Your task to perform on an android device: toggle notification dots Image 0: 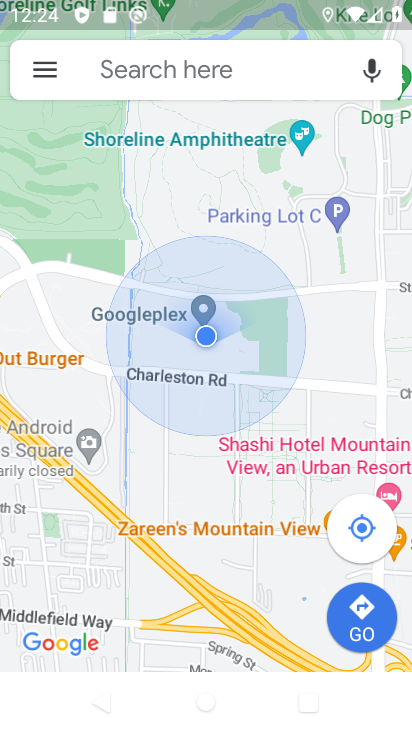
Step 0: press home button
Your task to perform on an android device: toggle notification dots Image 1: 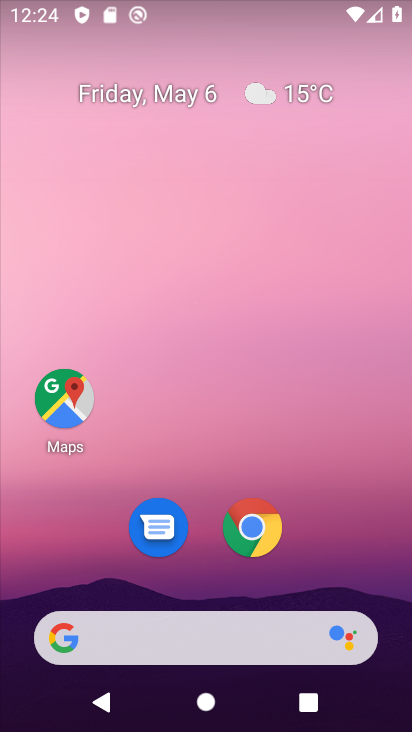
Step 1: drag from (336, 511) to (234, 1)
Your task to perform on an android device: toggle notification dots Image 2: 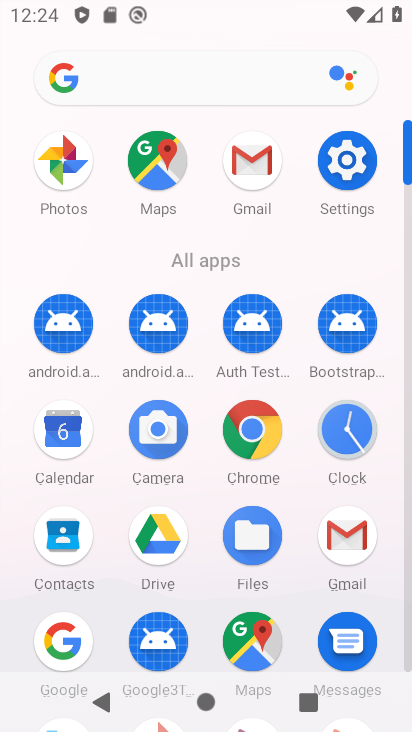
Step 2: click (346, 158)
Your task to perform on an android device: toggle notification dots Image 3: 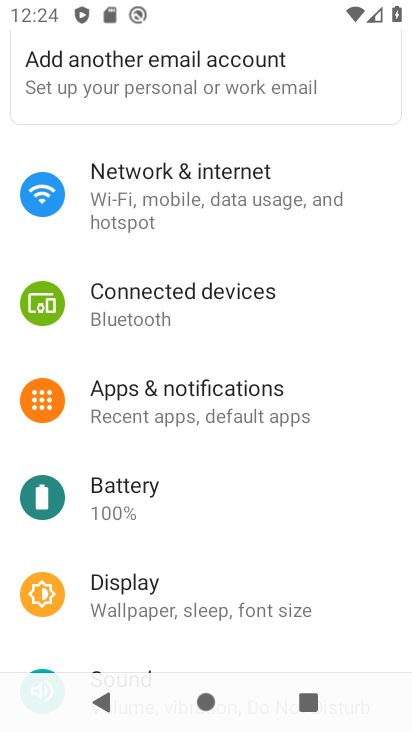
Step 3: click (177, 395)
Your task to perform on an android device: toggle notification dots Image 4: 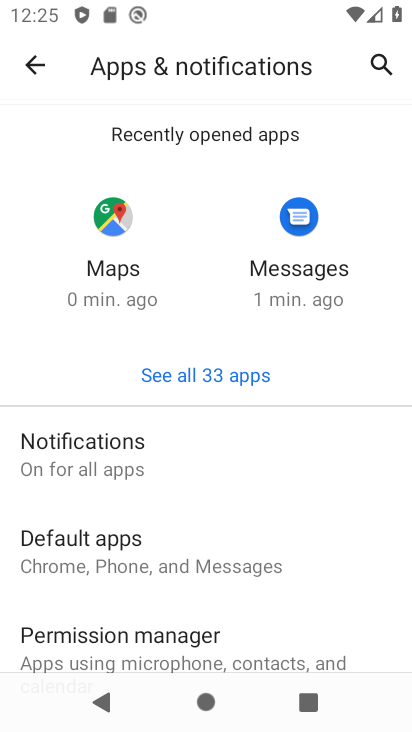
Step 4: drag from (165, 511) to (215, 407)
Your task to perform on an android device: toggle notification dots Image 5: 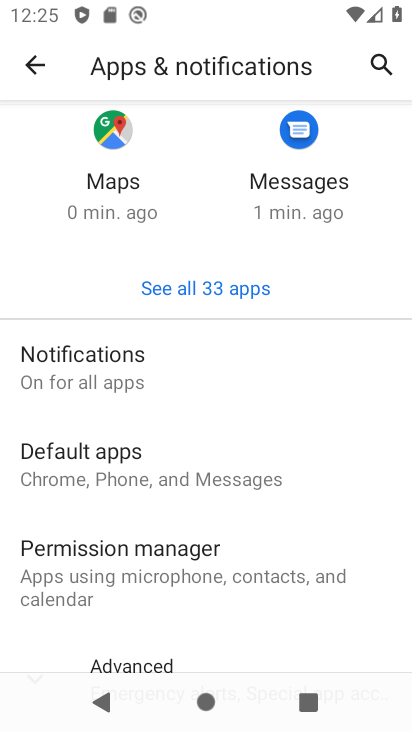
Step 5: drag from (174, 471) to (211, 345)
Your task to perform on an android device: toggle notification dots Image 6: 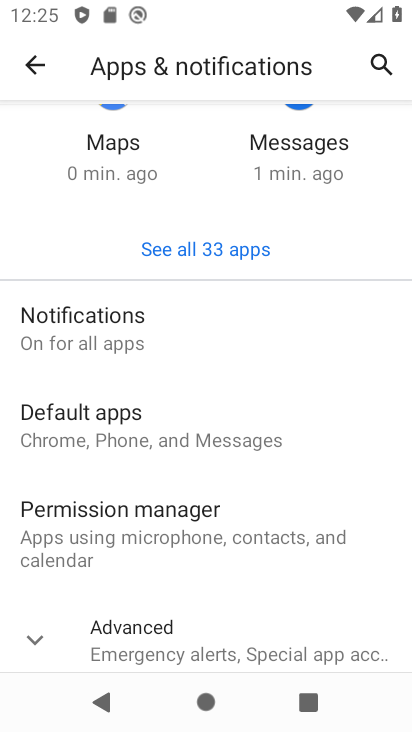
Step 6: click (101, 336)
Your task to perform on an android device: toggle notification dots Image 7: 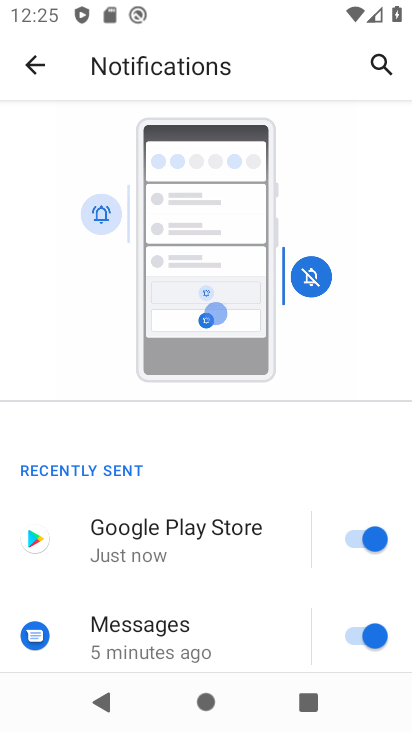
Step 7: drag from (185, 574) to (241, 382)
Your task to perform on an android device: toggle notification dots Image 8: 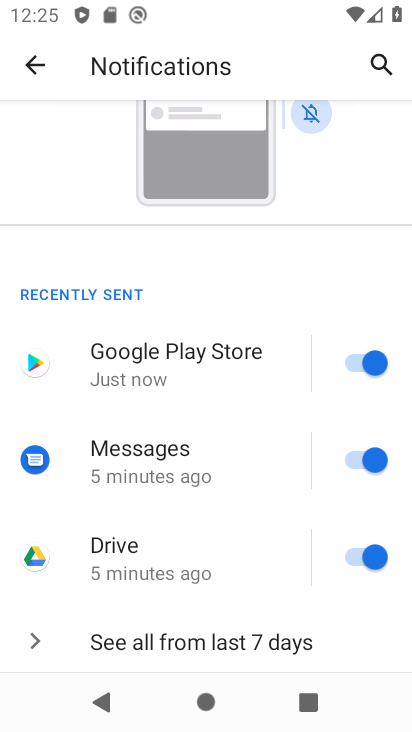
Step 8: drag from (186, 604) to (241, 442)
Your task to perform on an android device: toggle notification dots Image 9: 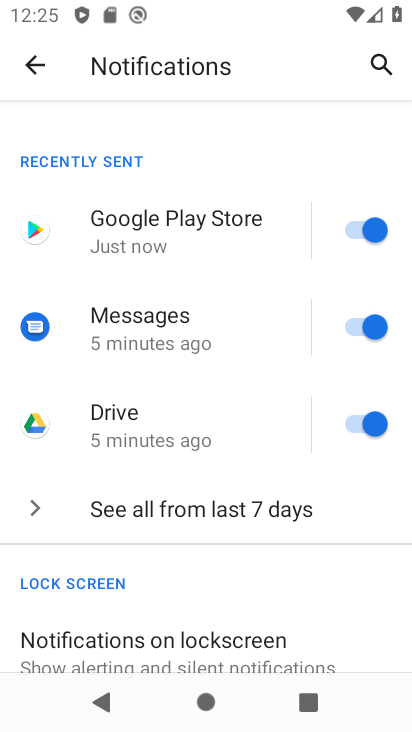
Step 9: drag from (190, 588) to (230, 447)
Your task to perform on an android device: toggle notification dots Image 10: 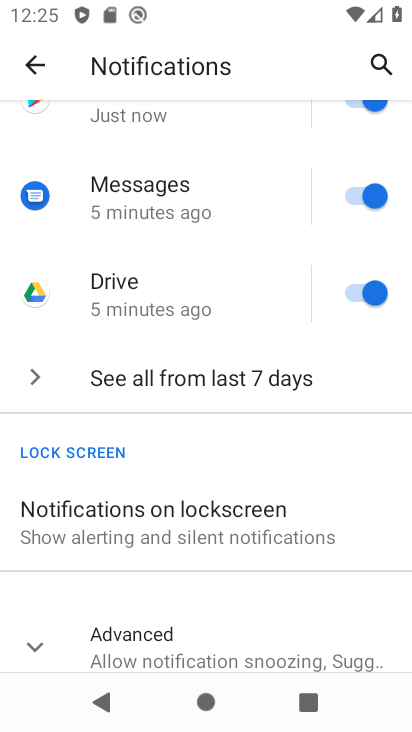
Step 10: drag from (191, 628) to (223, 517)
Your task to perform on an android device: toggle notification dots Image 11: 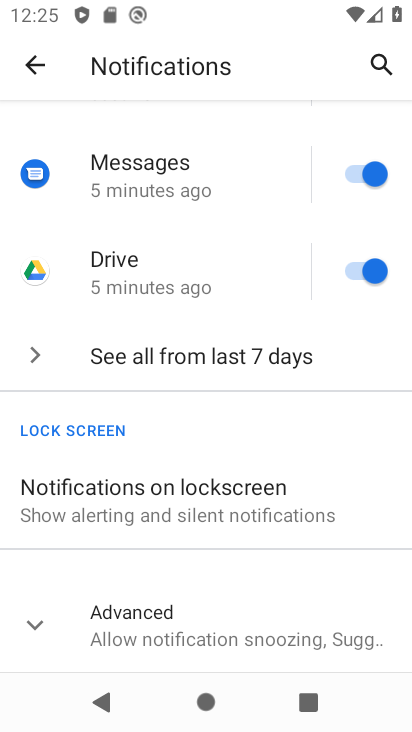
Step 11: click (144, 607)
Your task to perform on an android device: toggle notification dots Image 12: 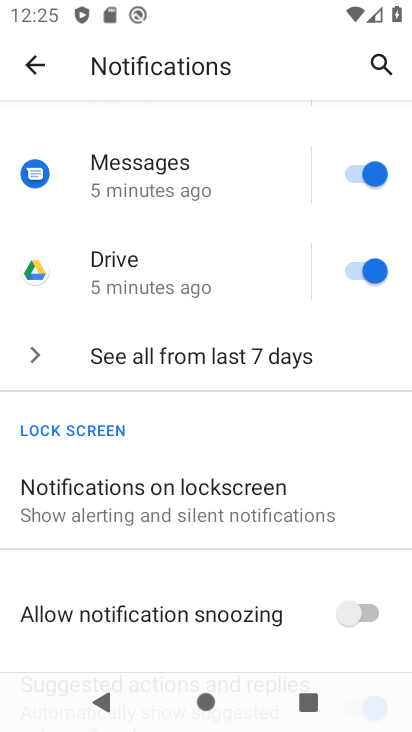
Step 12: drag from (154, 580) to (202, 452)
Your task to perform on an android device: toggle notification dots Image 13: 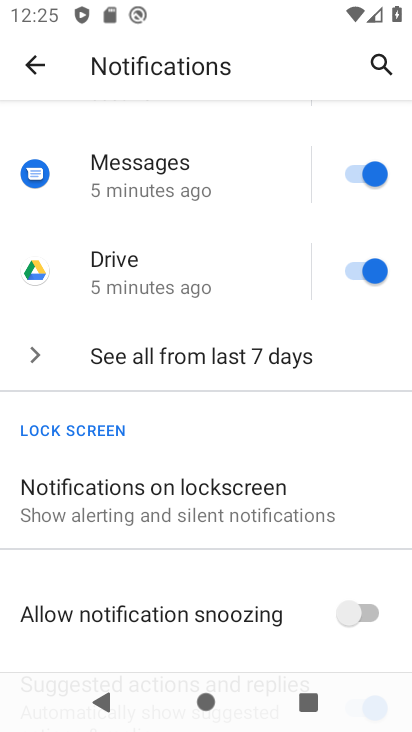
Step 13: drag from (156, 566) to (237, 373)
Your task to perform on an android device: toggle notification dots Image 14: 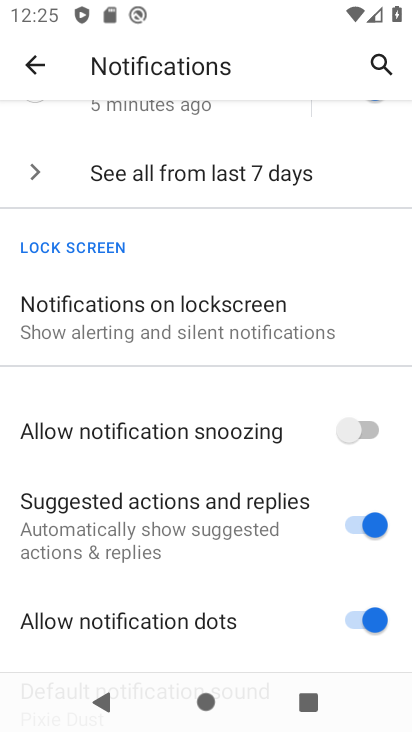
Step 14: drag from (168, 594) to (230, 406)
Your task to perform on an android device: toggle notification dots Image 15: 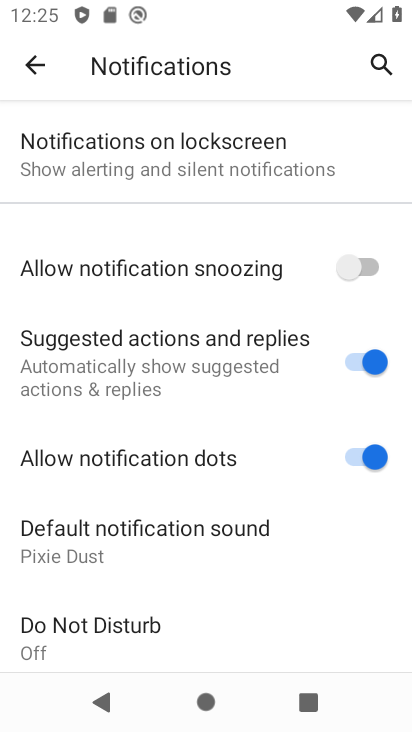
Step 15: click (378, 453)
Your task to perform on an android device: toggle notification dots Image 16: 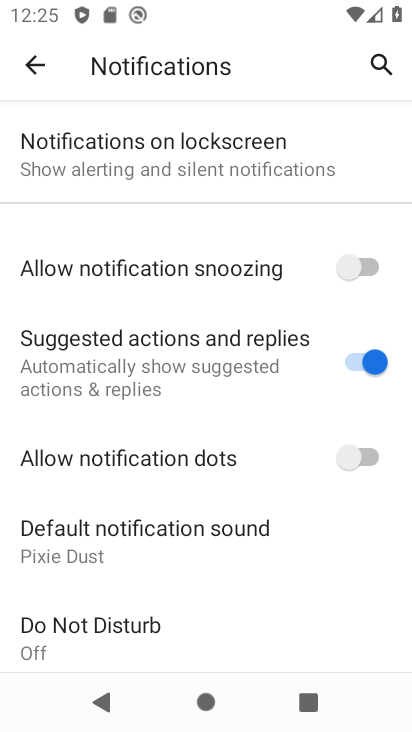
Step 16: task complete